Your task to perform on an android device: What is the news today? Image 0: 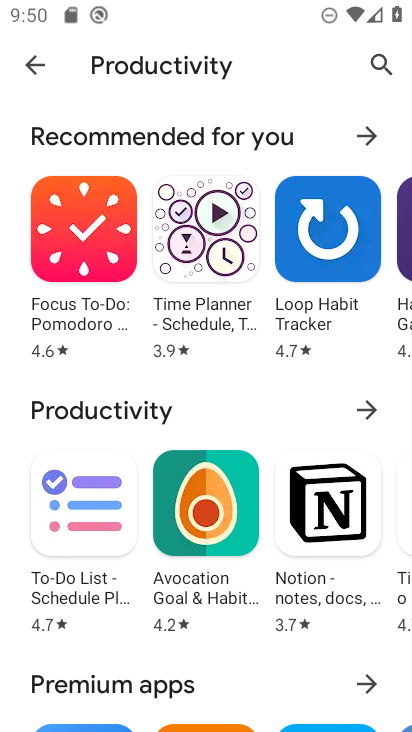
Step 0: click (34, 67)
Your task to perform on an android device: What is the news today? Image 1: 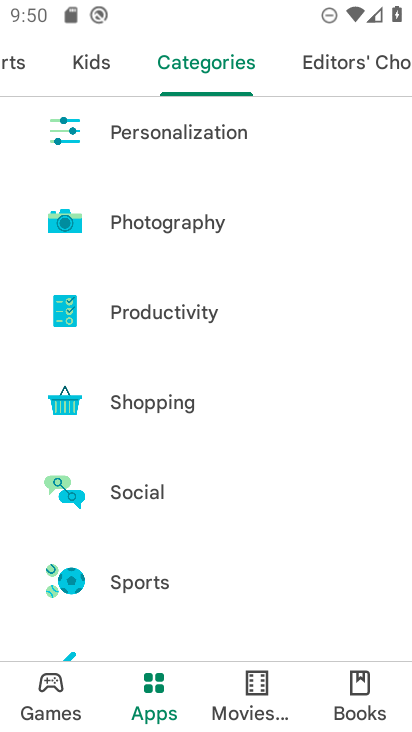
Step 1: task complete